Your task to perform on an android device: turn on javascript in the chrome app Image 0: 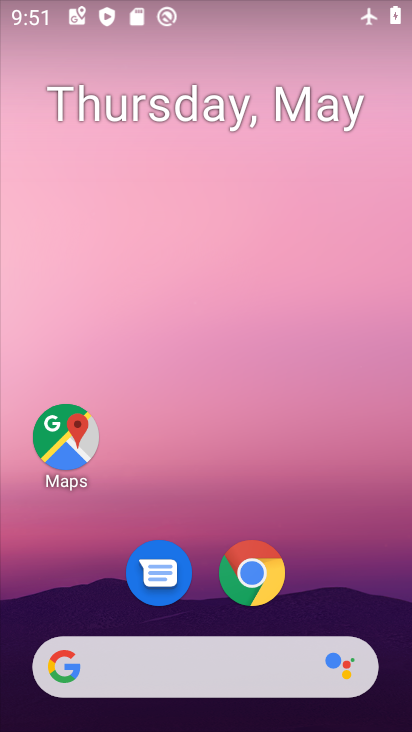
Step 0: click (248, 558)
Your task to perform on an android device: turn on javascript in the chrome app Image 1: 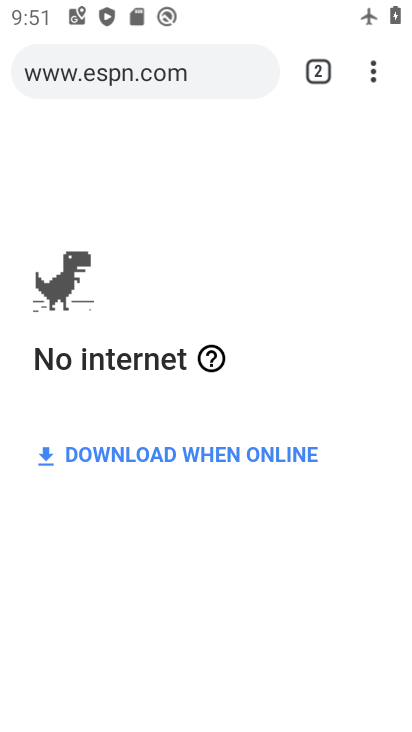
Step 1: drag from (376, 70) to (142, 580)
Your task to perform on an android device: turn on javascript in the chrome app Image 2: 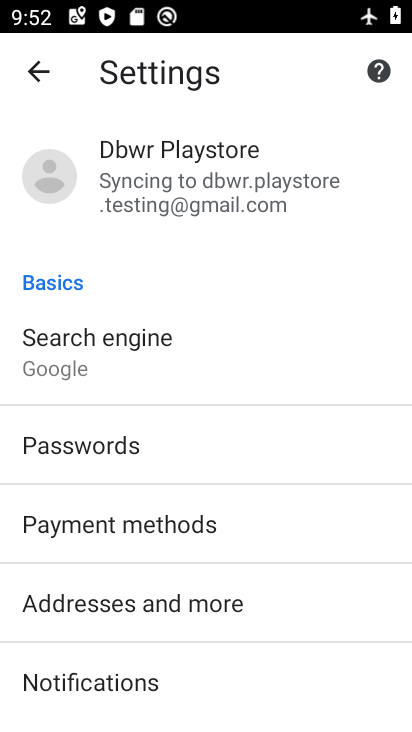
Step 2: drag from (213, 622) to (235, 306)
Your task to perform on an android device: turn on javascript in the chrome app Image 3: 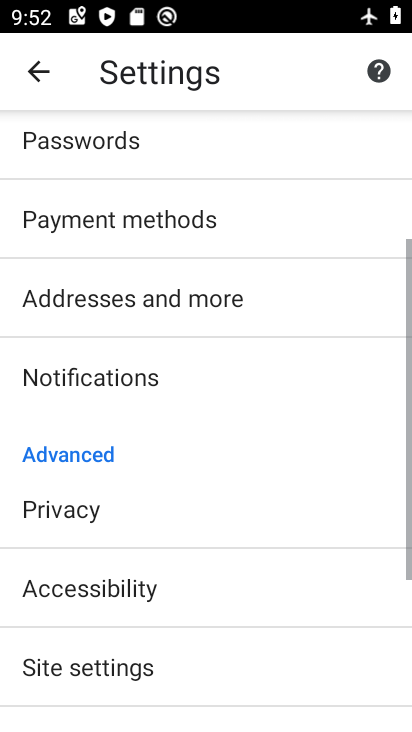
Step 3: drag from (208, 610) to (194, 364)
Your task to perform on an android device: turn on javascript in the chrome app Image 4: 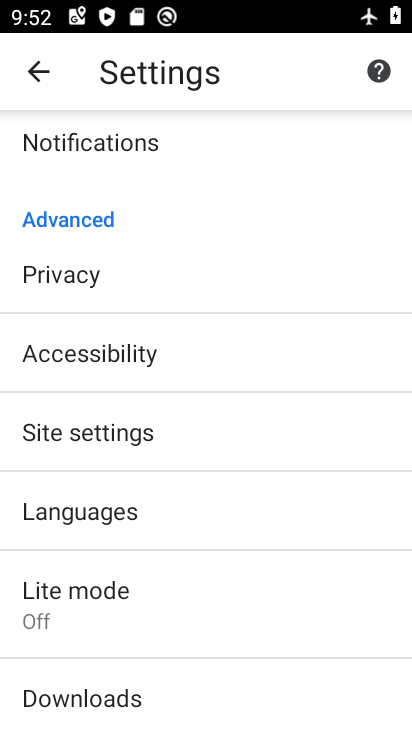
Step 4: drag from (202, 610) to (217, 374)
Your task to perform on an android device: turn on javascript in the chrome app Image 5: 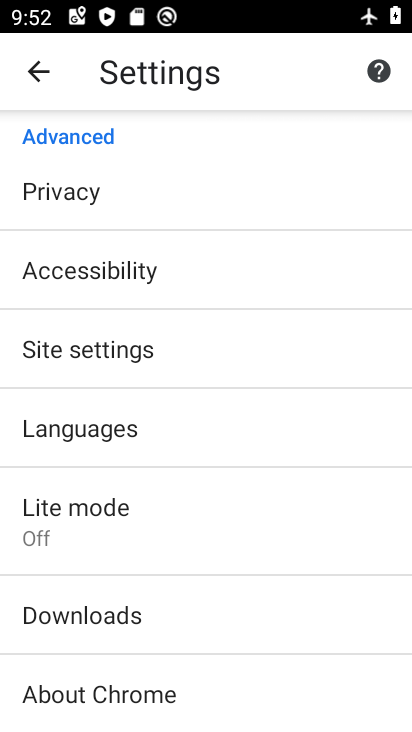
Step 5: click (132, 348)
Your task to perform on an android device: turn on javascript in the chrome app Image 6: 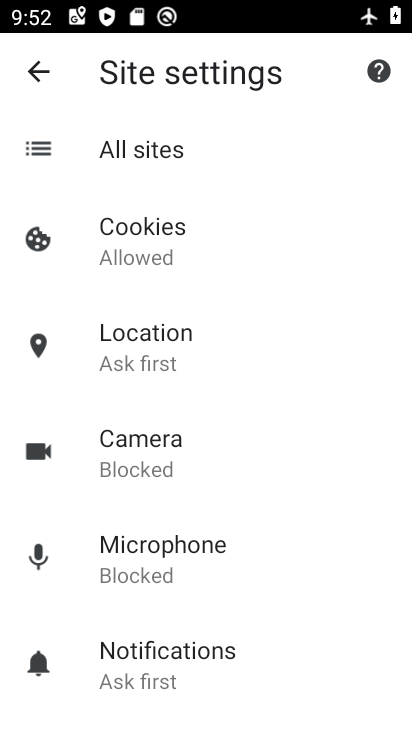
Step 6: drag from (191, 602) to (204, 327)
Your task to perform on an android device: turn on javascript in the chrome app Image 7: 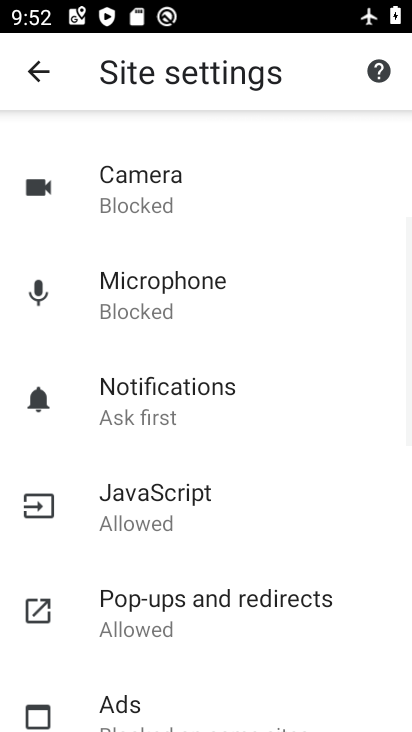
Step 7: click (185, 499)
Your task to perform on an android device: turn on javascript in the chrome app Image 8: 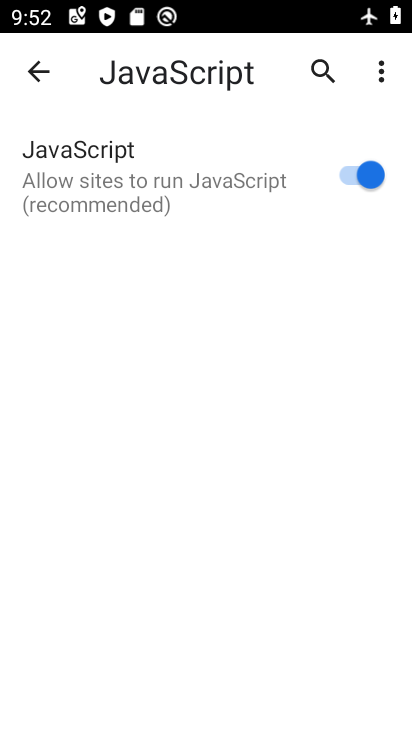
Step 8: task complete